Your task to perform on an android device: make emails show in primary in the gmail app Image 0: 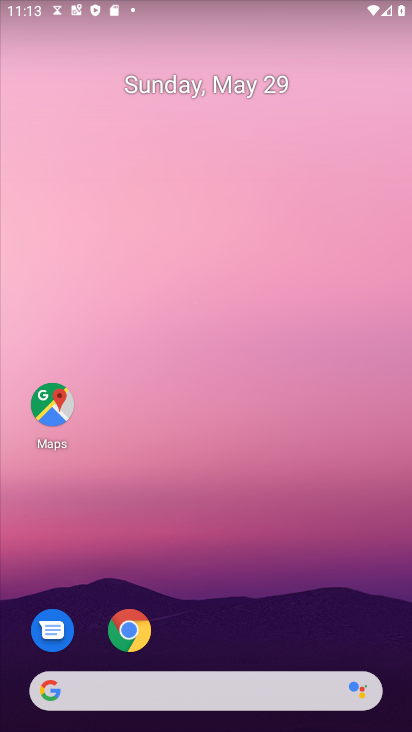
Step 0: drag from (231, 556) to (229, 154)
Your task to perform on an android device: make emails show in primary in the gmail app Image 1: 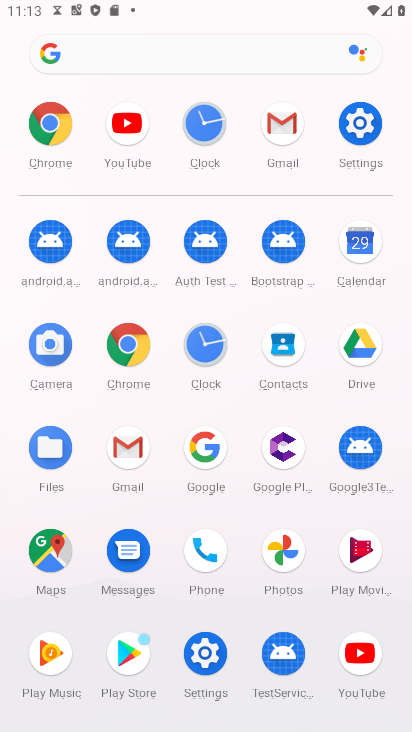
Step 1: click (278, 116)
Your task to perform on an android device: make emails show in primary in the gmail app Image 2: 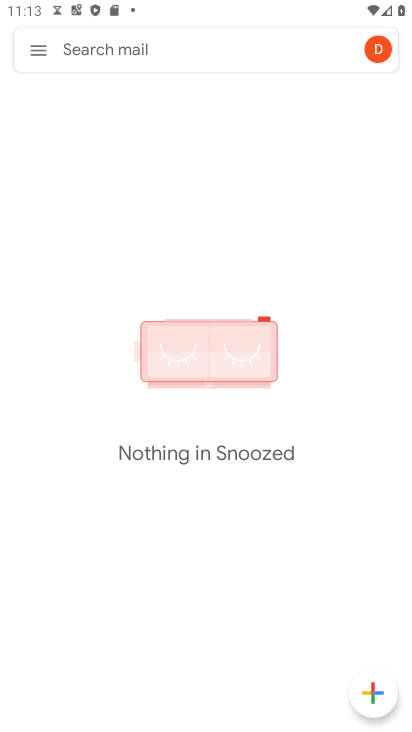
Step 2: click (23, 34)
Your task to perform on an android device: make emails show in primary in the gmail app Image 3: 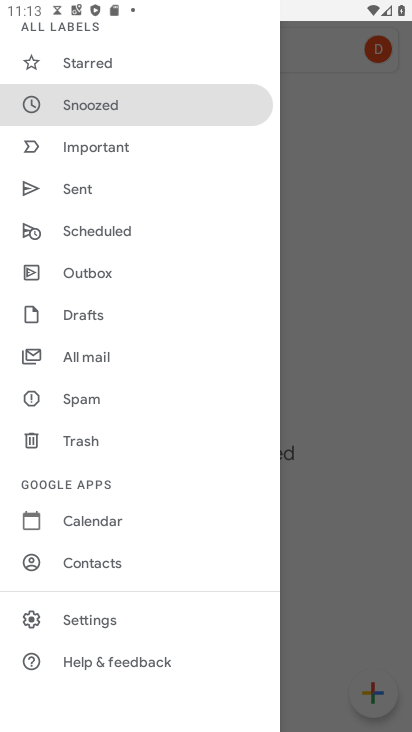
Step 3: drag from (185, 518) to (220, 53)
Your task to perform on an android device: make emails show in primary in the gmail app Image 4: 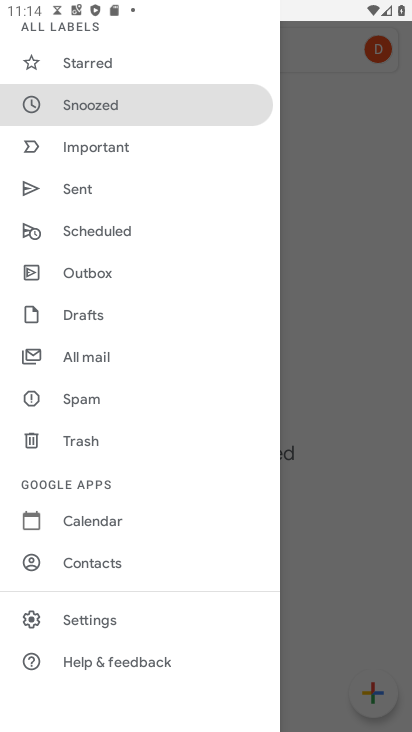
Step 4: drag from (124, 213) to (122, 683)
Your task to perform on an android device: make emails show in primary in the gmail app Image 5: 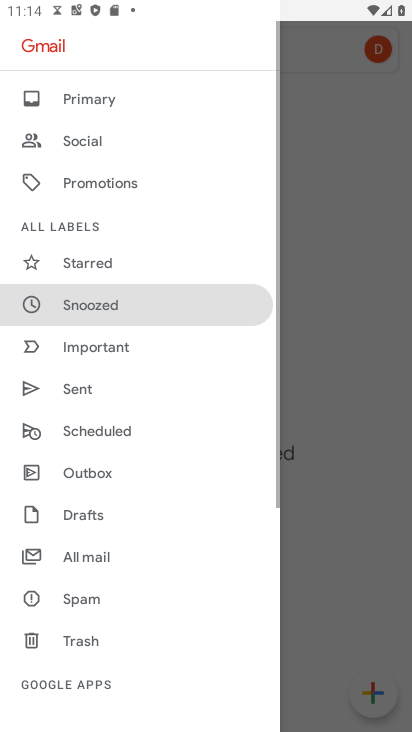
Step 5: click (127, 94)
Your task to perform on an android device: make emails show in primary in the gmail app Image 6: 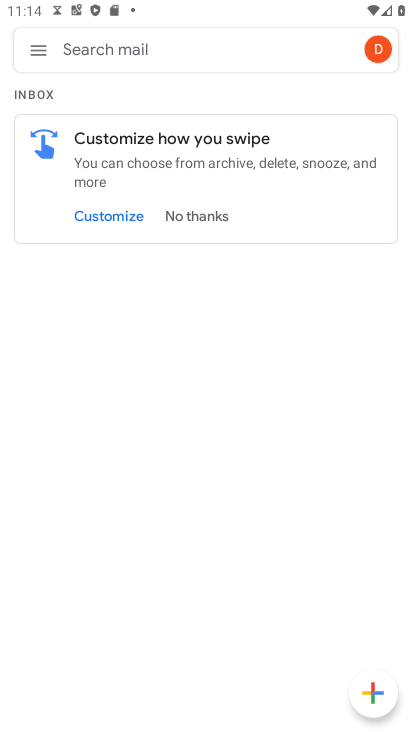
Step 6: task complete